Your task to perform on an android device: What's on my calendar tomorrow? Image 0: 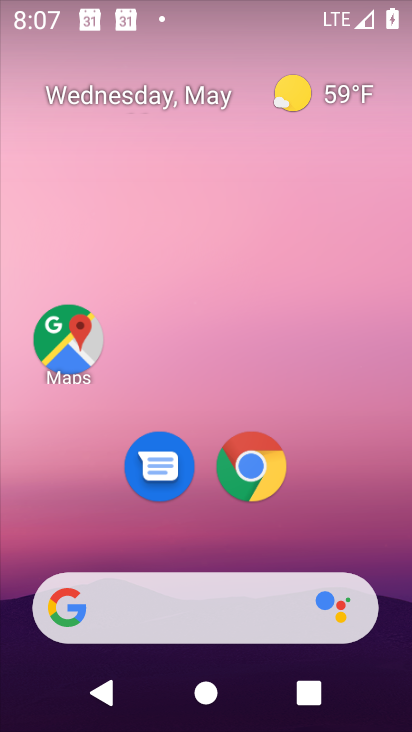
Step 0: drag from (345, 484) to (352, 259)
Your task to perform on an android device: What's on my calendar tomorrow? Image 1: 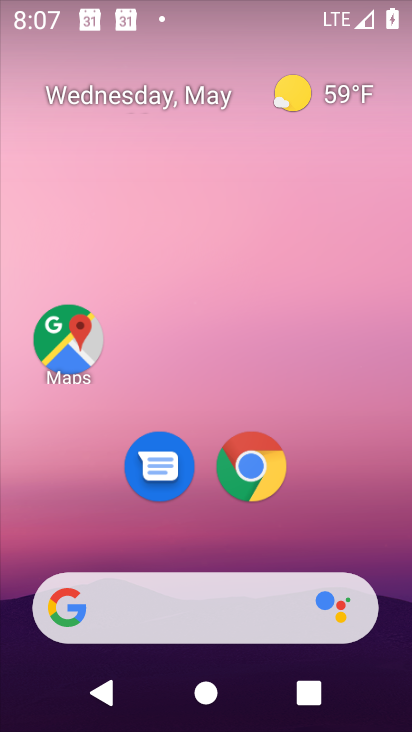
Step 1: drag from (305, 485) to (279, 204)
Your task to perform on an android device: What's on my calendar tomorrow? Image 2: 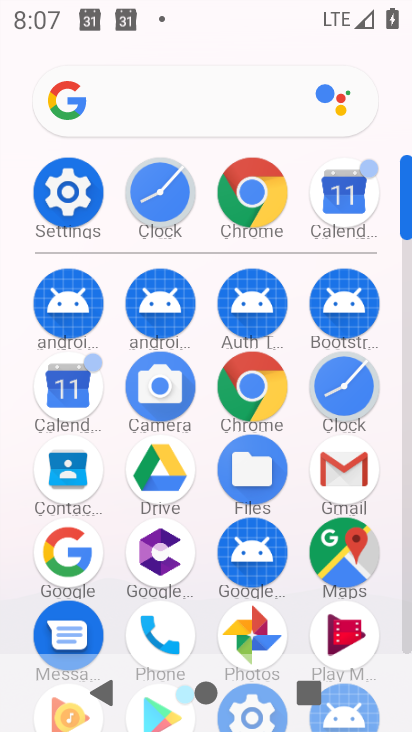
Step 2: click (337, 195)
Your task to perform on an android device: What's on my calendar tomorrow? Image 3: 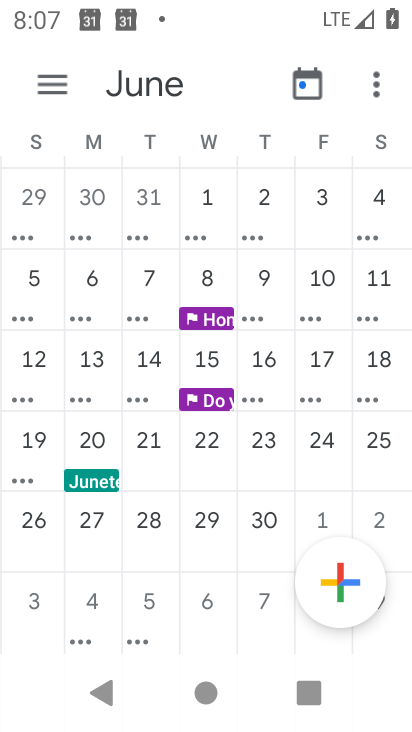
Step 3: click (49, 91)
Your task to perform on an android device: What's on my calendar tomorrow? Image 4: 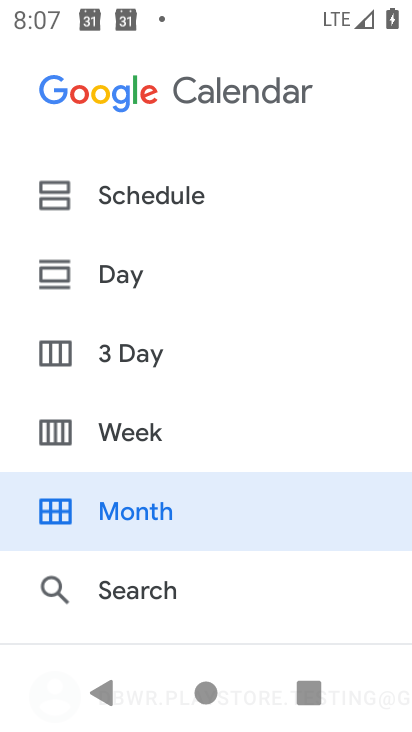
Step 4: click (113, 275)
Your task to perform on an android device: What's on my calendar tomorrow? Image 5: 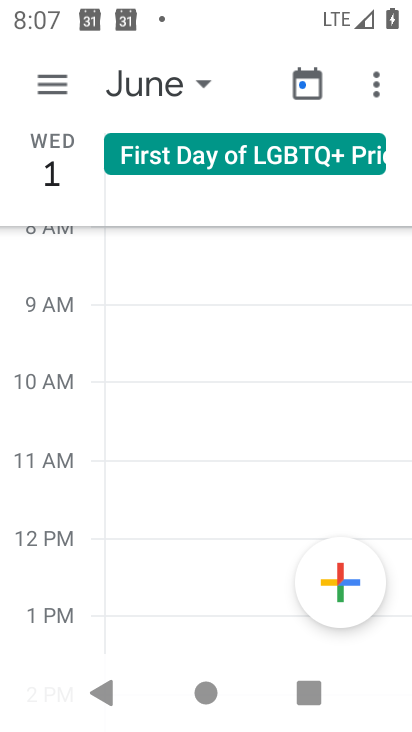
Step 5: click (55, 86)
Your task to perform on an android device: What's on my calendar tomorrow? Image 6: 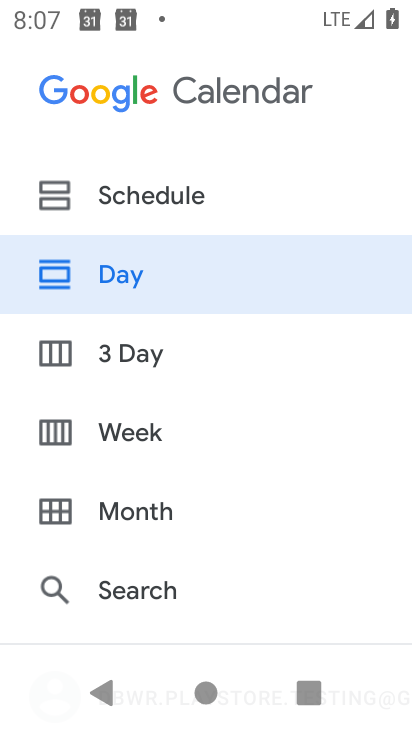
Step 6: click (144, 527)
Your task to perform on an android device: What's on my calendar tomorrow? Image 7: 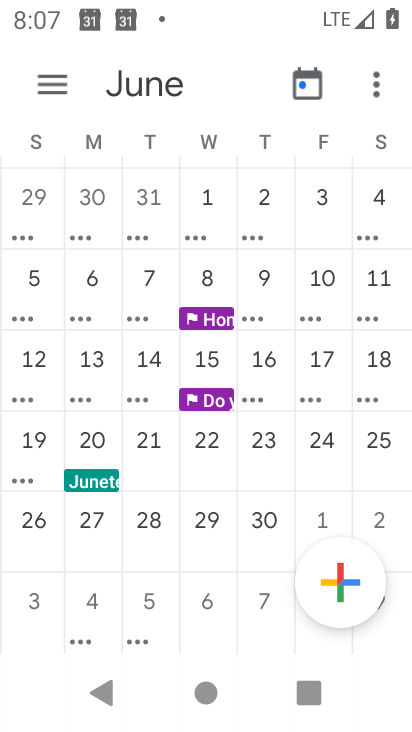
Step 7: drag from (65, 269) to (371, 279)
Your task to perform on an android device: What's on my calendar tomorrow? Image 8: 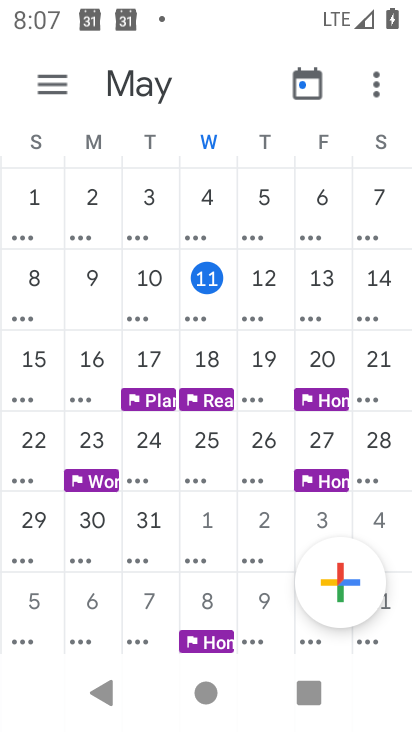
Step 8: click (312, 286)
Your task to perform on an android device: What's on my calendar tomorrow? Image 9: 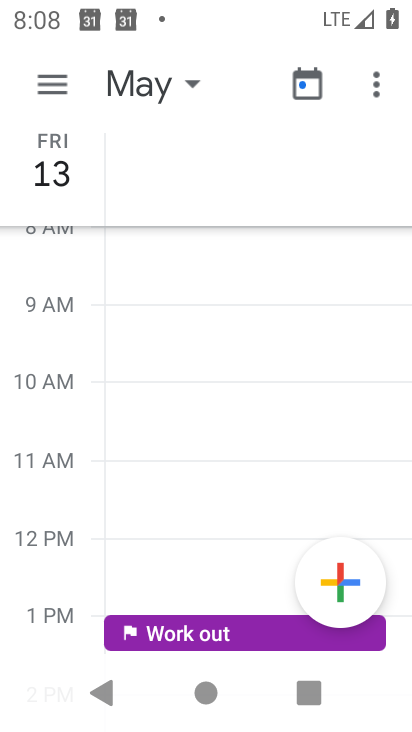
Step 9: task complete